Your task to perform on an android device: Turn off the flashlight Image 0: 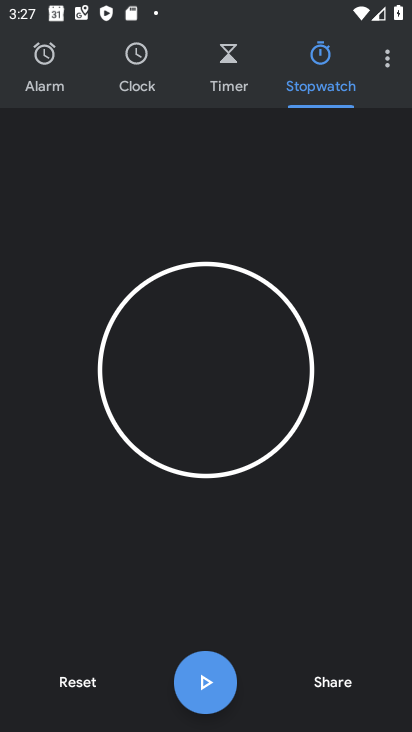
Step 0: press home button
Your task to perform on an android device: Turn off the flashlight Image 1: 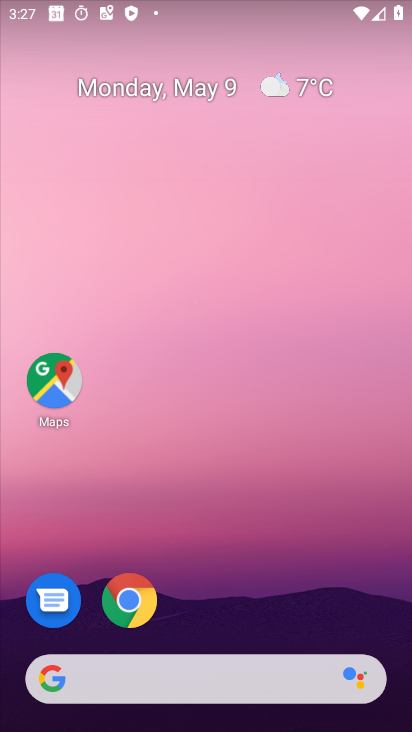
Step 1: task complete